Your task to perform on an android device: Open the map Image 0: 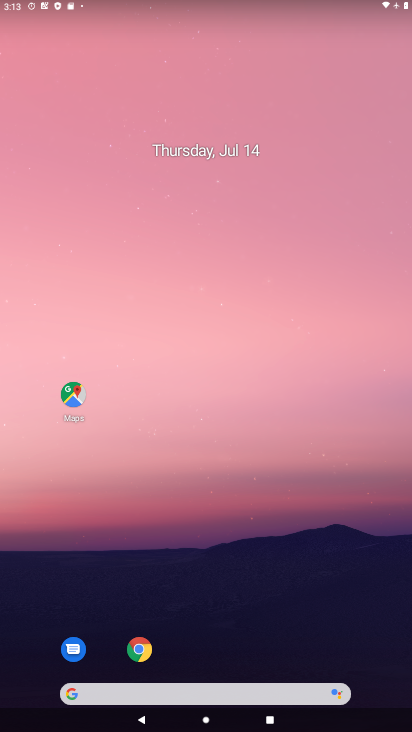
Step 0: click (70, 390)
Your task to perform on an android device: Open the map Image 1: 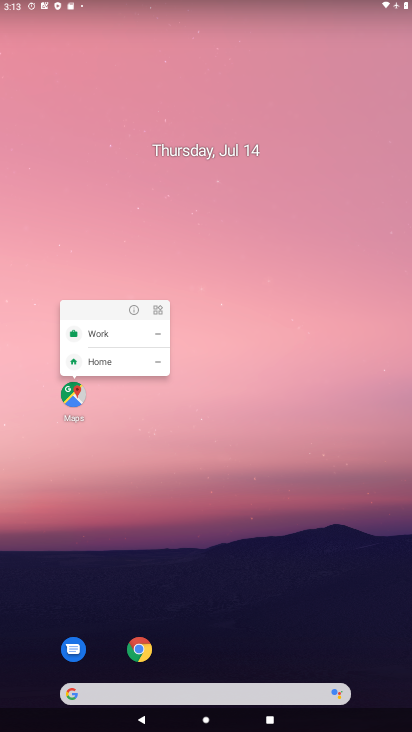
Step 1: click (74, 406)
Your task to perform on an android device: Open the map Image 2: 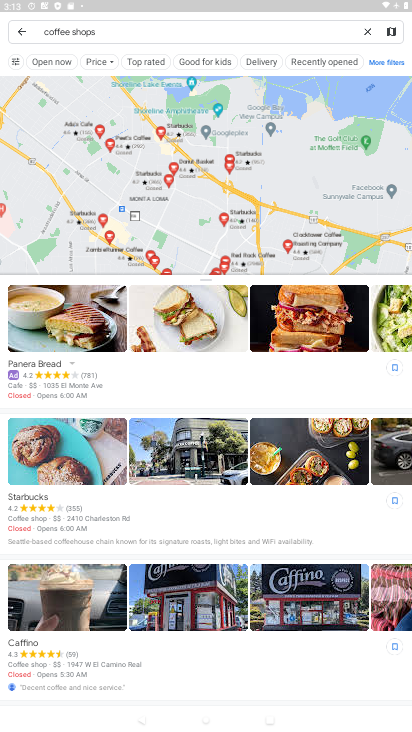
Step 2: click (16, 31)
Your task to perform on an android device: Open the map Image 3: 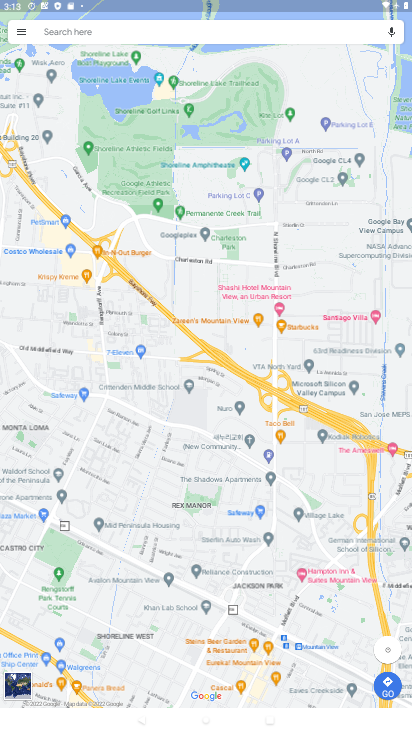
Step 3: task complete